Your task to perform on an android device: Go to Maps Image 0: 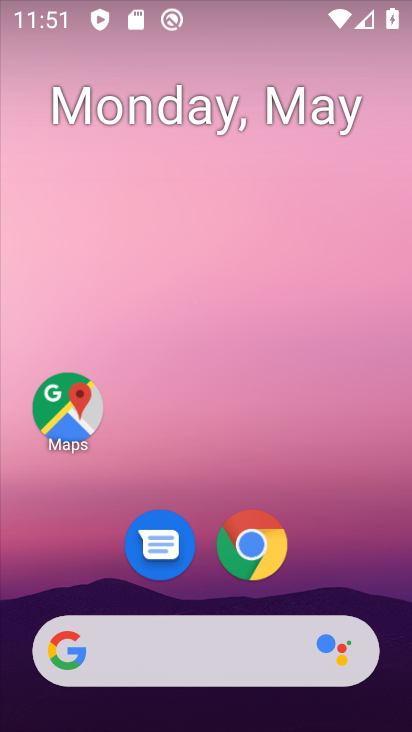
Step 0: click (77, 396)
Your task to perform on an android device: Go to Maps Image 1: 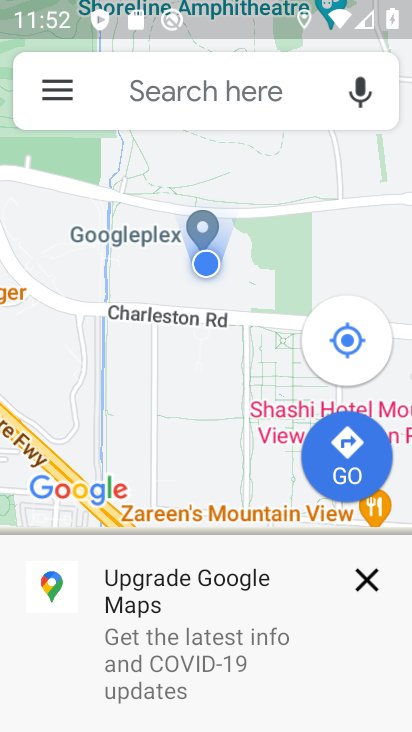
Step 1: task complete